Your task to perform on an android device: toggle airplane mode Image 0: 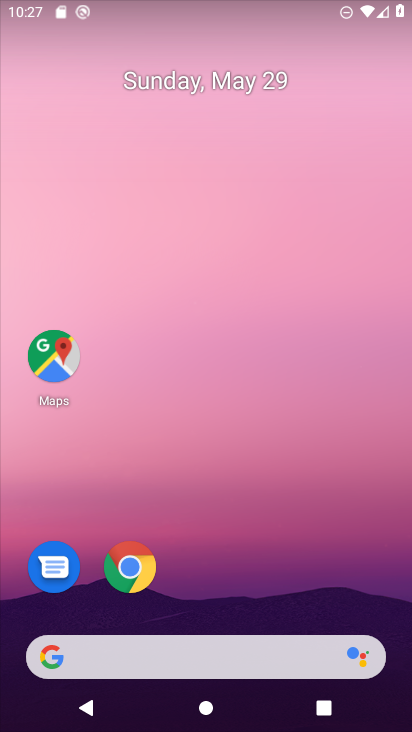
Step 0: drag from (386, 618) to (316, 99)
Your task to perform on an android device: toggle airplane mode Image 1: 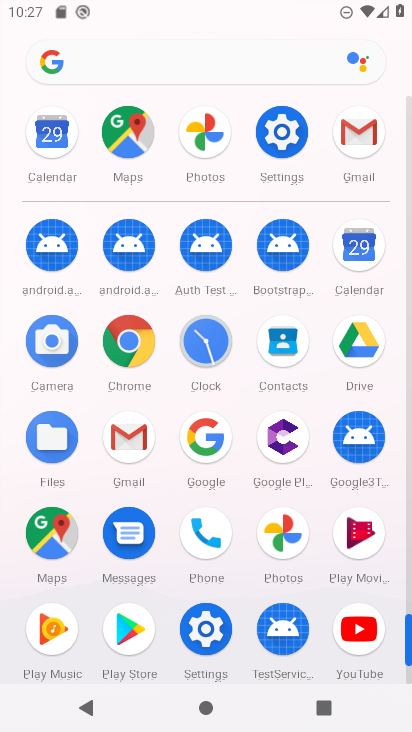
Step 1: click (205, 629)
Your task to perform on an android device: toggle airplane mode Image 2: 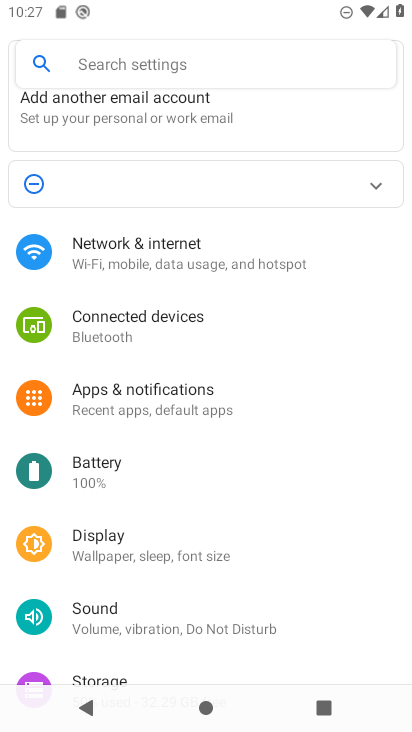
Step 2: click (127, 249)
Your task to perform on an android device: toggle airplane mode Image 3: 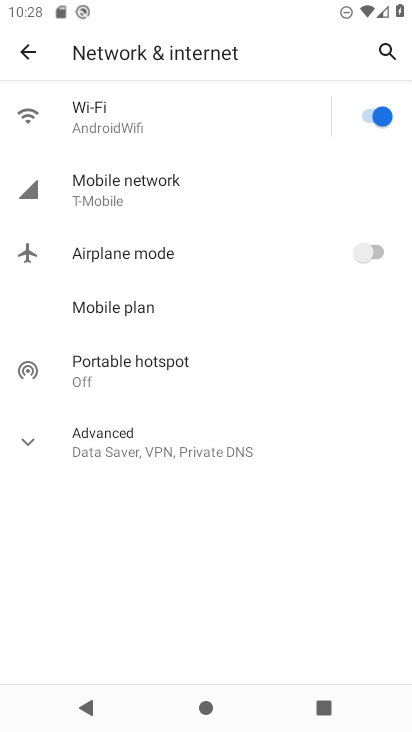
Step 3: click (383, 253)
Your task to perform on an android device: toggle airplane mode Image 4: 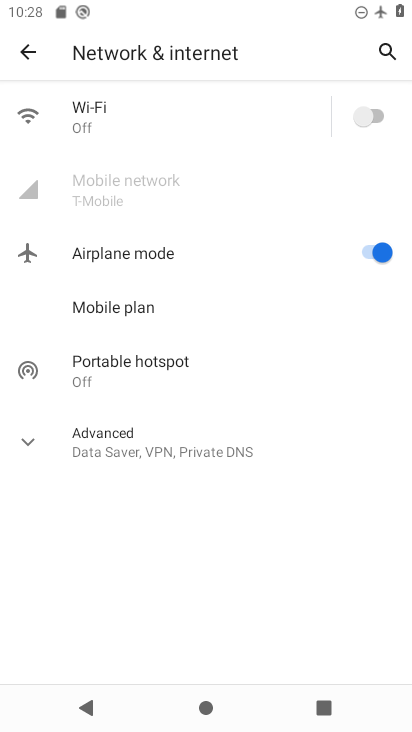
Step 4: task complete